Your task to perform on an android device: turn off sleep mode Image 0: 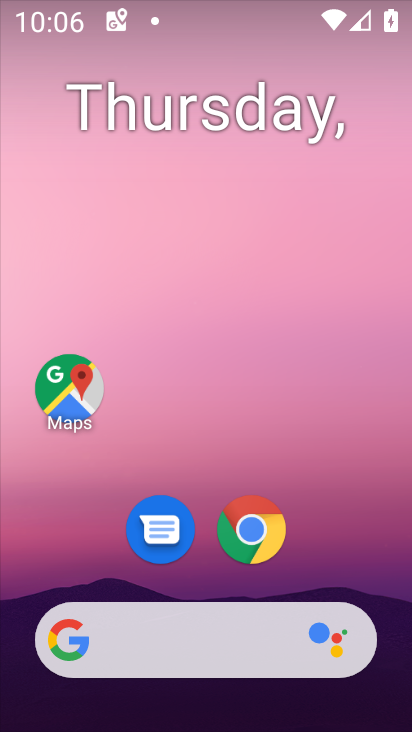
Step 0: drag from (334, 565) to (231, 49)
Your task to perform on an android device: turn off sleep mode Image 1: 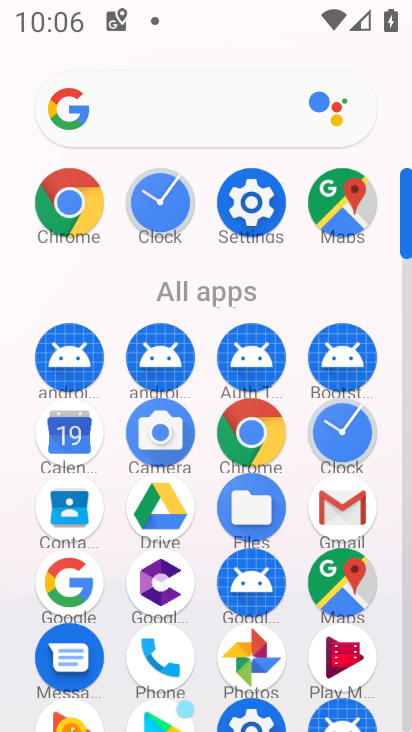
Step 1: click (252, 215)
Your task to perform on an android device: turn off sleep mode Image 2: 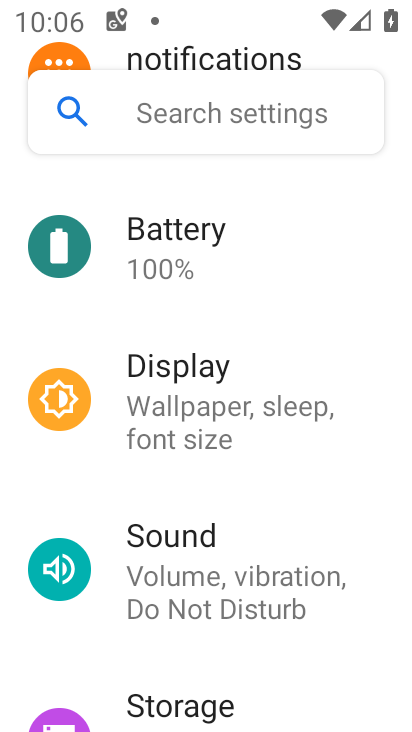
Step 2: click (152, 432)
Your task to perform on an android device: turn off sleep mode Image 3: 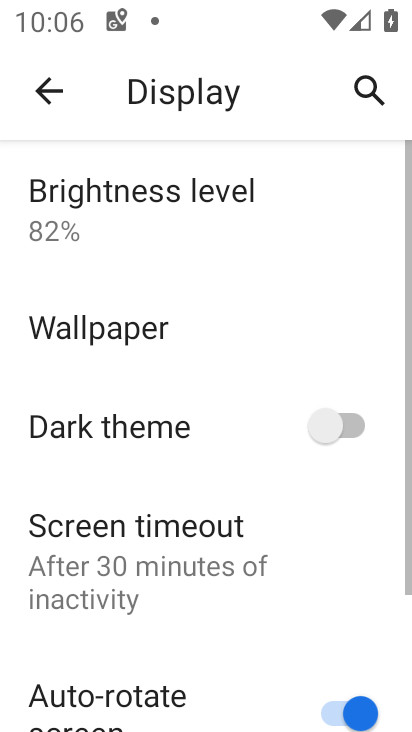
Step 3: drag from (219, 696) to (219, 295)
Your task to perform on an android device: turn off sleep mode Image 4: 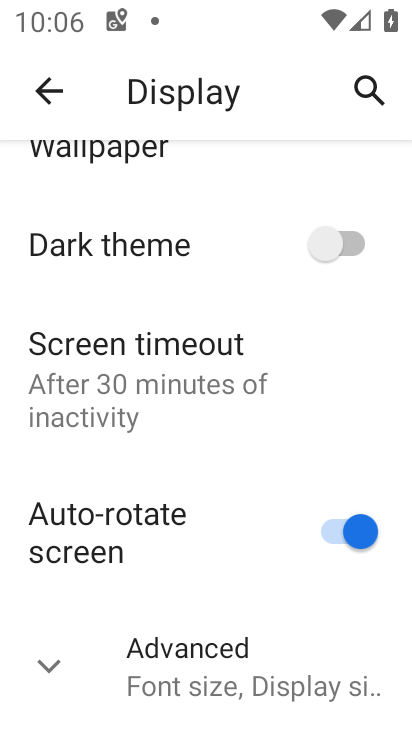
Step 4: click (207, 691)
Your task to perform on an android device: turn off sleep mode Image 5: 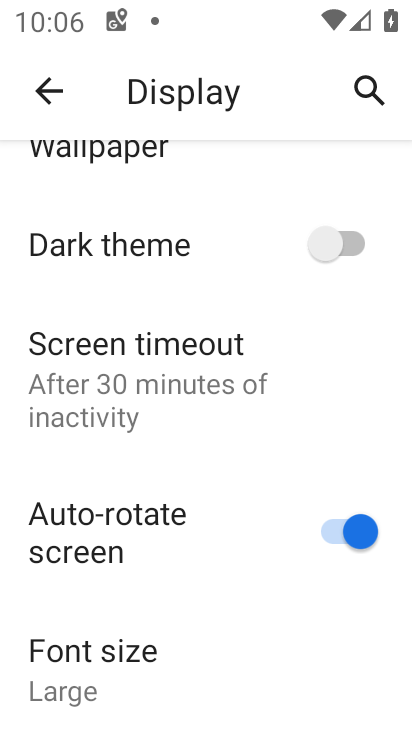
Step 5: task complete